Your task to perform on an android device: Go to location settings Image 0: 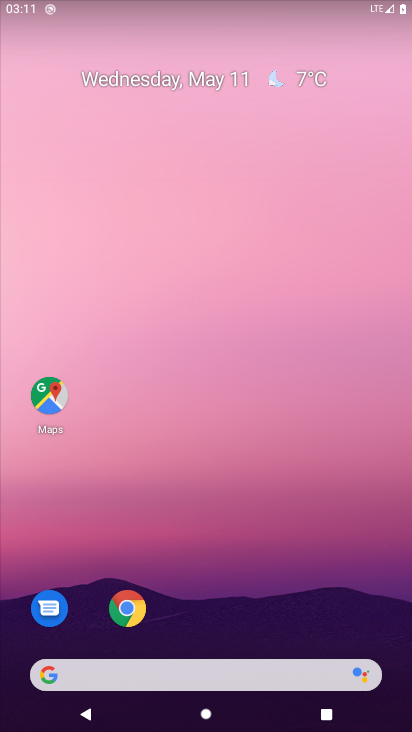
Step 0: drag from (220, 563) to (263, 52)
Your task to perform on an android device: Go to location settings Image 1: 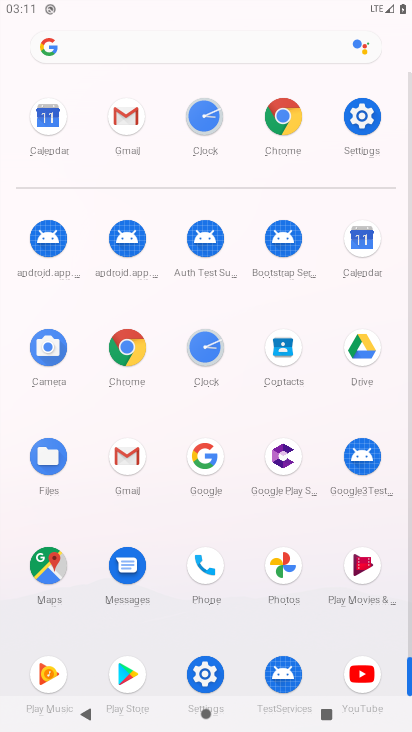
Step 1: click (206, 669)
Your task to perform on an android device: Go to location settings Image 2: 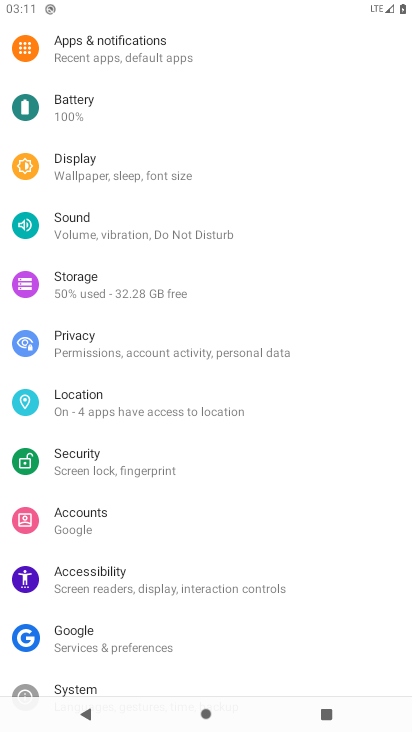
Step 2: click (119, 393)
Your task to perform on an android device: Go to location settings Image 3: 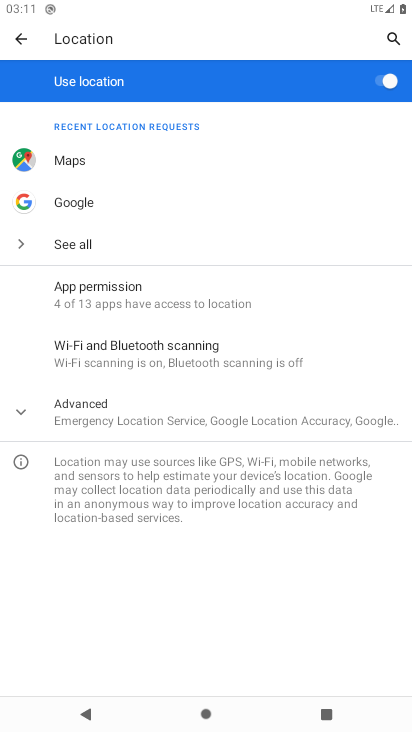
Step 3: click (14, 405)
Your task to perform on an android device: Go to location settings Image 4: 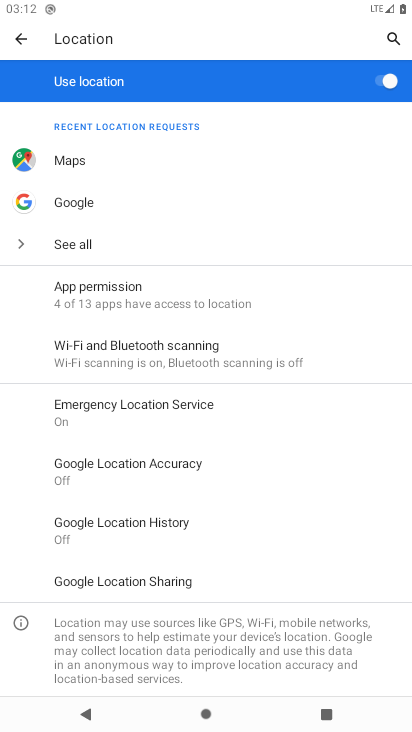
Step 4: task complete